Your task to perform on an android device: Open Google Chrome and open the bookmarks view Image 0: 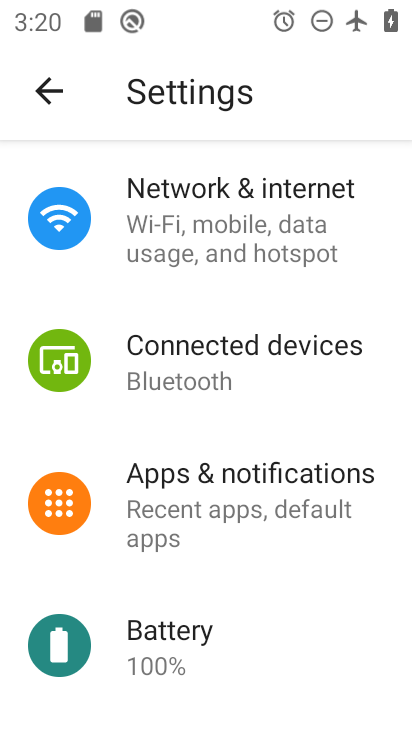
Step 0: press home button
Your task to perform on an android device: Open Google Chrome and open the bookmarks view Image 1: 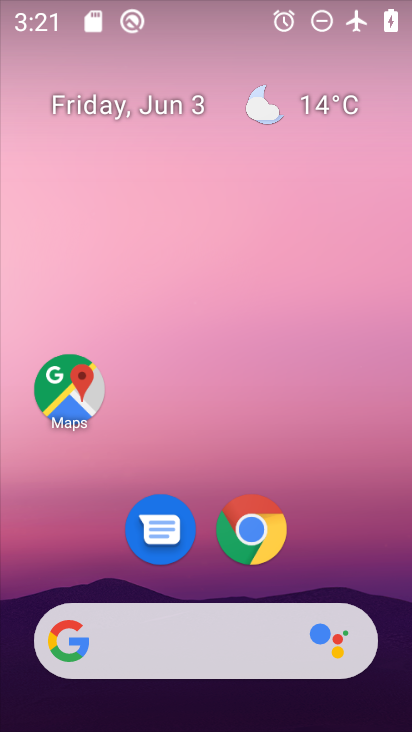
Step 1: drag from (361, 544) to (353, 176)
Your task to perform on an android device: Open Google Chrome and open the bookmarks view Image 2: 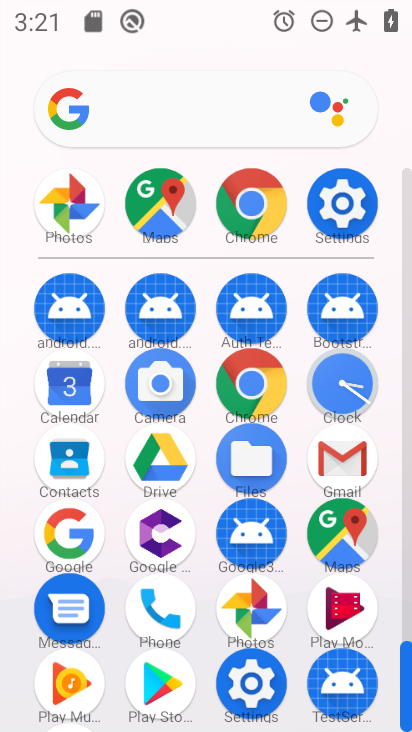
Step 2: click (270, 391)
Your task to perform on an android device: Open Google Chrome and open the bookmarks view Image 3: 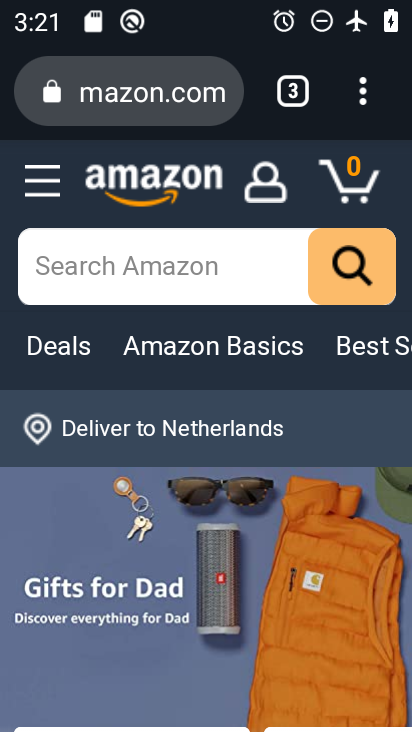
Step 3: click (364, 107)
Your task to perform on an android device: Open Google Chrome and open the bookmarks view Image 4: 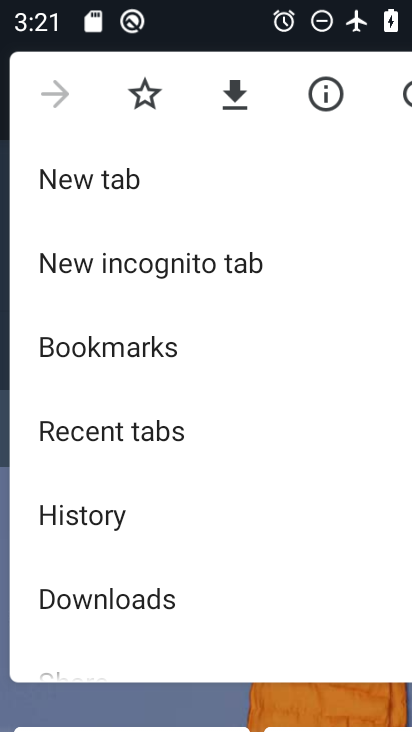
Step 4: drag from (293, 484) to (292, 349)
Your task to perform on an android device: Open Google Chrome and open the bookmarks view Image 5: 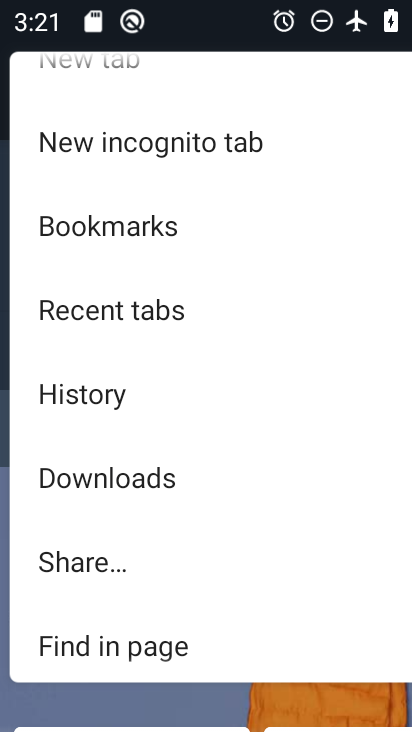
Step 5: drag from (293, 538) to (288, 420)
Your task to perform on an android device: Open Google Chrome and open the bookmarks view Image 6: 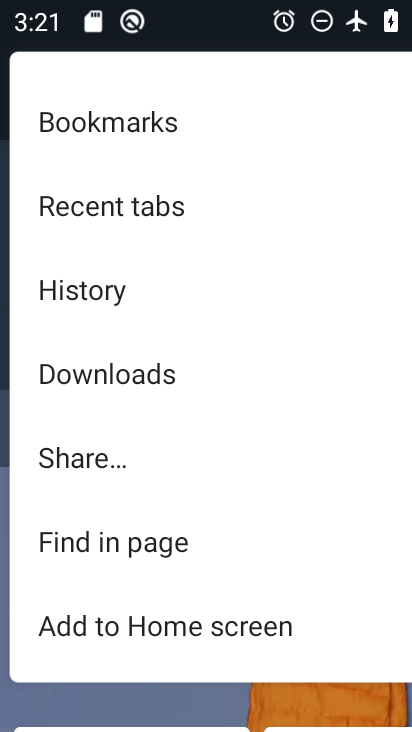
Step 6: drag from (285, 525) to (285, 335)
Your task to perform on an android device: Open Google Chrome and open the bookmarks view Image 7: 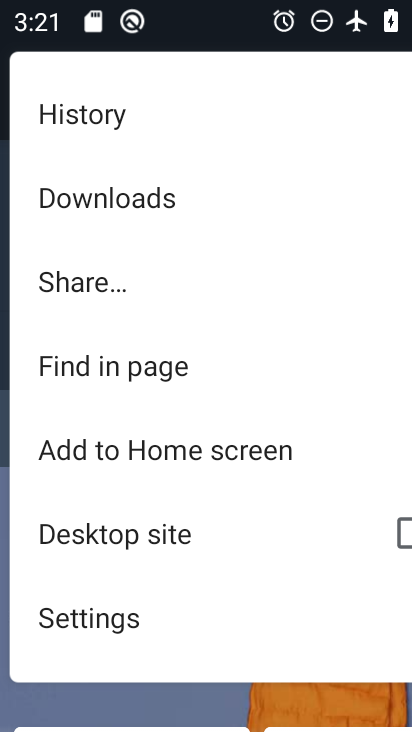
Step 7: drag from (287, 290) to (301, 435)
Your task to perform on an android device: Open Google Chrome and open the bookmarks view Image 8: 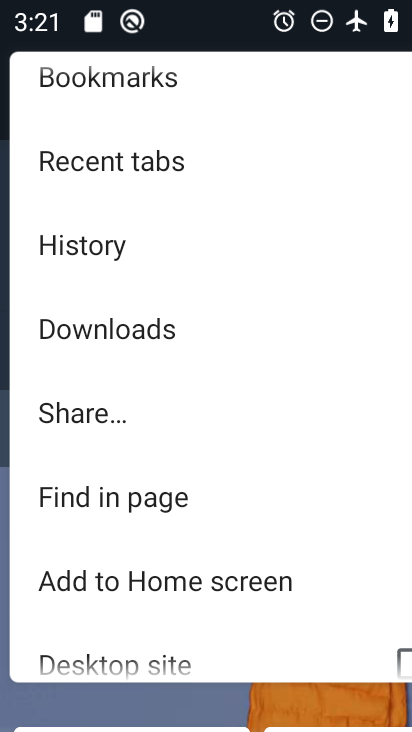
Step 8: drag from (287, 280) to (305, 394)
Your task to perform on an android device: Open Google Chrome and open the bookmarks view Image 9: 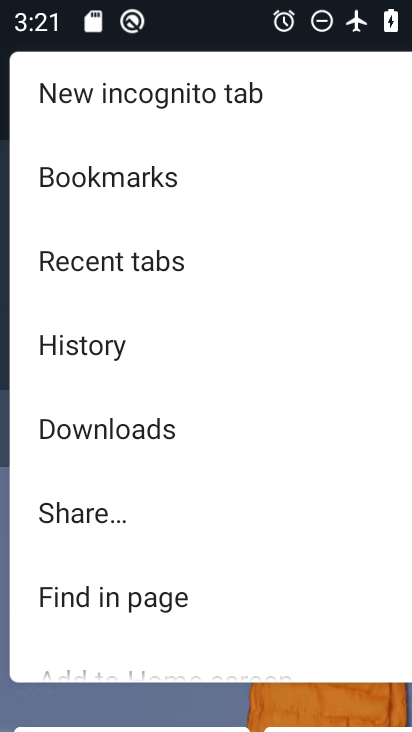
Step 9: drag from (296, 279) to (294, 401)
Your task to perform on an android device: Open Google Chrome and open the bookmarks view Image 10: 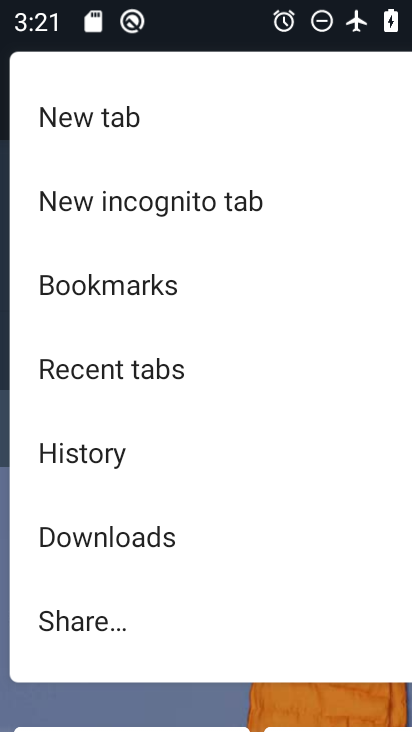
Step 10: click (218, 293)
Your task to perform on an android device: Open Google Chrome and open the bookmarks view Image 11: 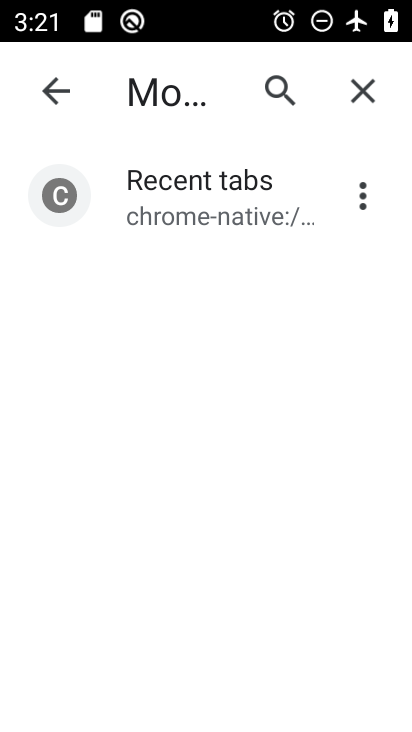
Step 11: task complete